Your task to perform on an android device: Go to Maps Image 0: 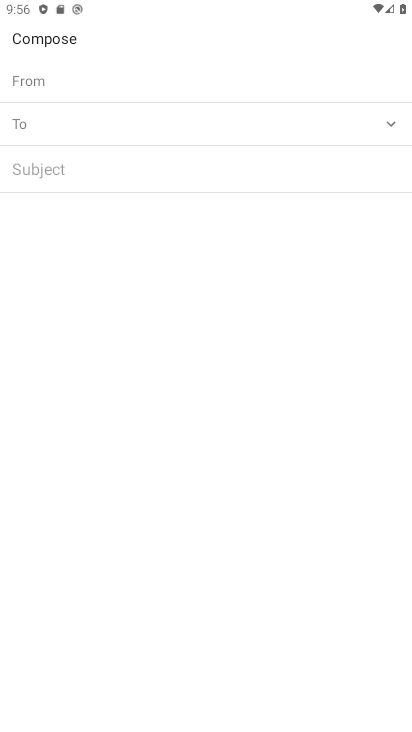
Step 0: drag from (216, 678) to (254, 337)
Your task to perform on an android device: Go to Maps Image 1: 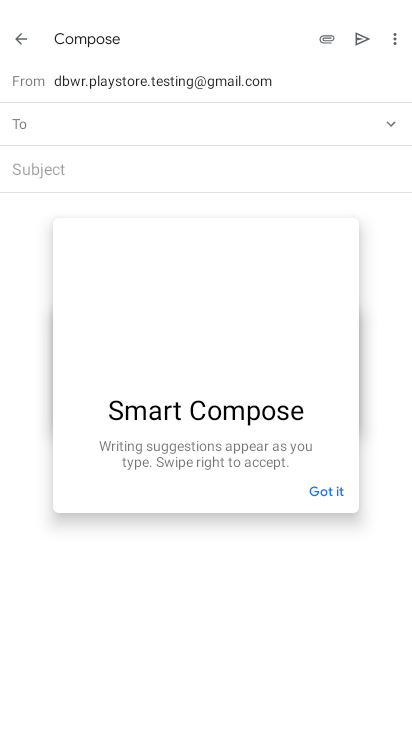
Step 1: press home button
Your task to perform on an android device: Go to Maps Image 2: 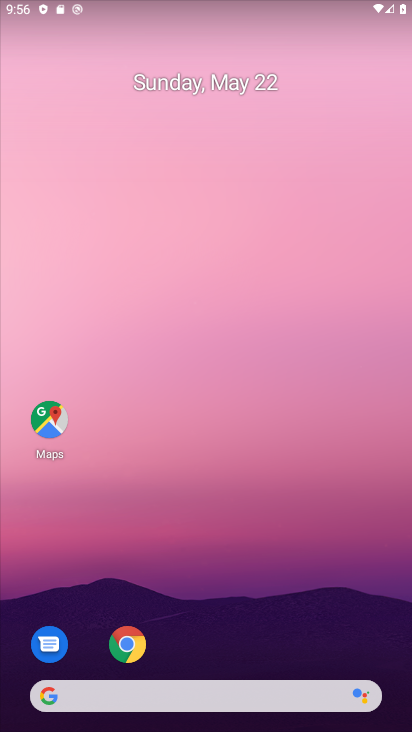
Step 2: click (44, 408)
Your task to perform on an android device: Go to Maps Image 3: 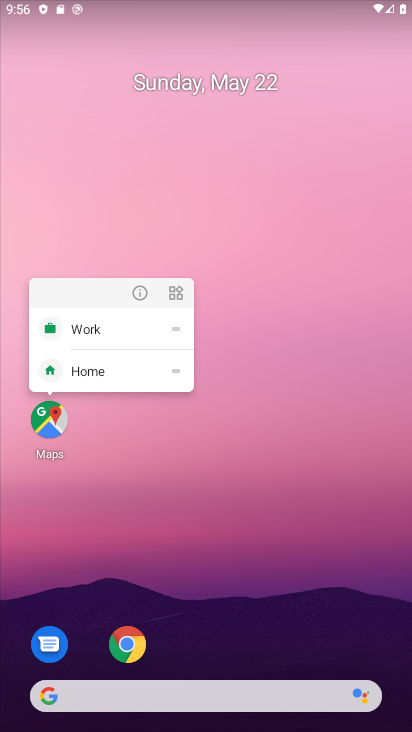
Step 3: click (50, 418)
Your task to perform on an android device: Go to Maps Image 4: 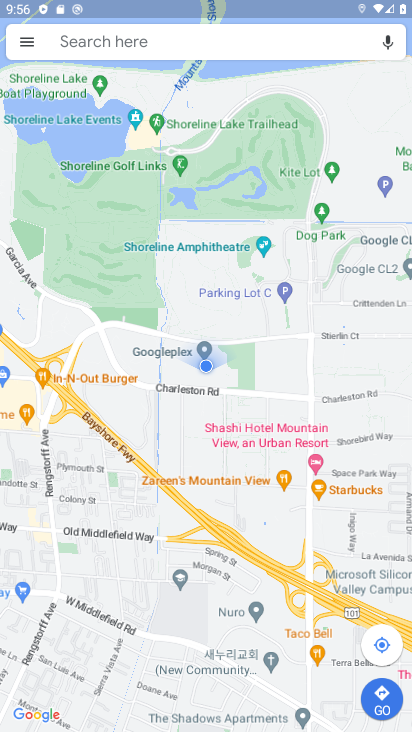
Step 4: task complete